Your task to perform on an android device: Open maps Image 0: 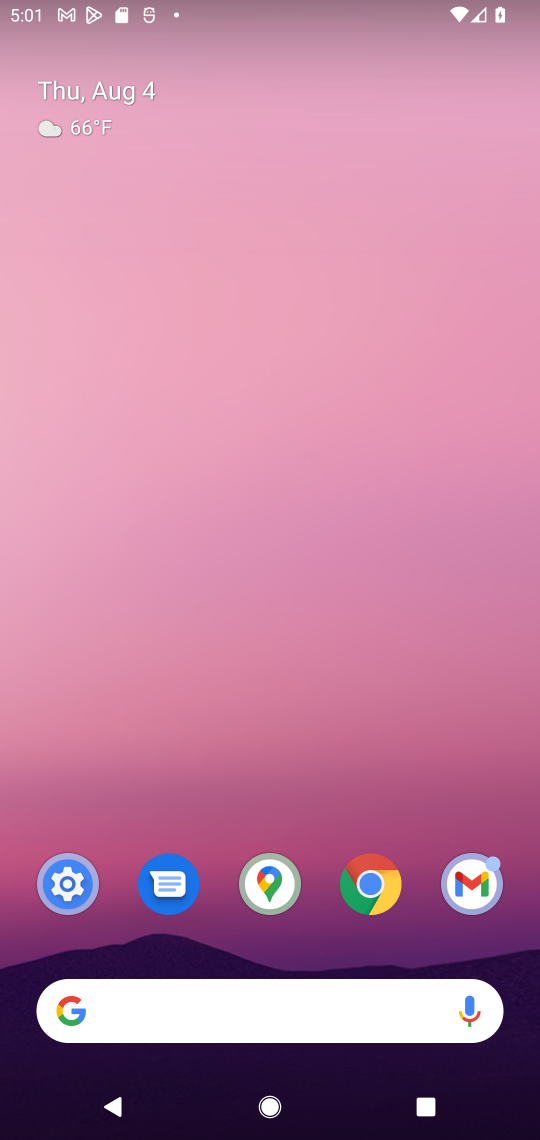
Step 0: click (244, 873)
Your task to perform on an android device: Open maps Image 1: 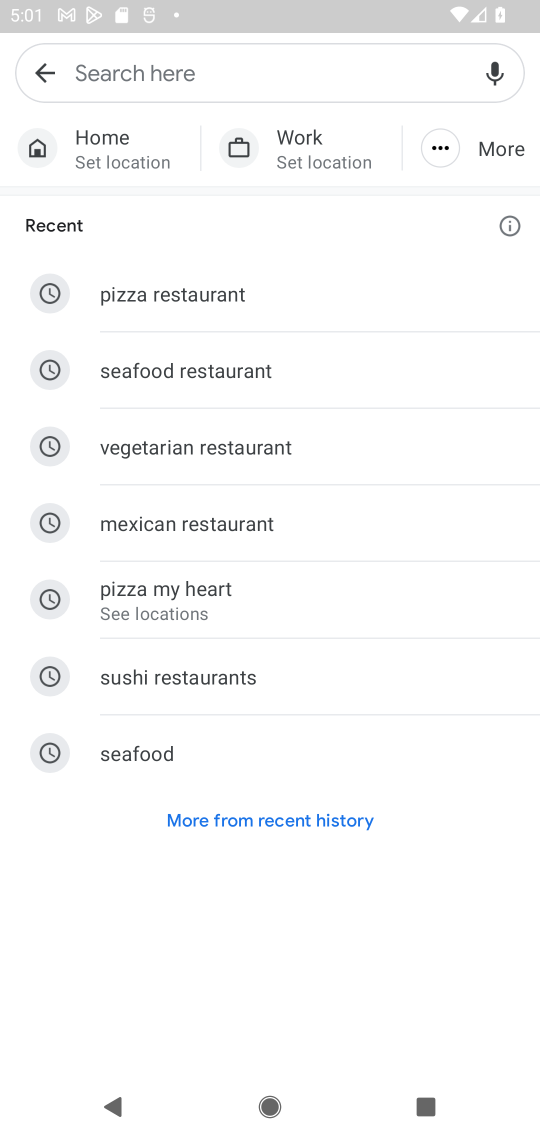
Step 1: task complete